Your task to perform on an android device: When is my next meeting? Image 0: 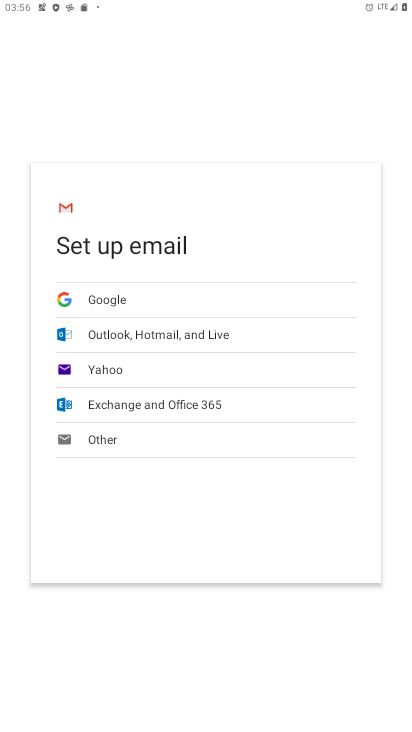
Step 0: press home button
Your task to perform on an android device: When is my next meeting? Image 1: 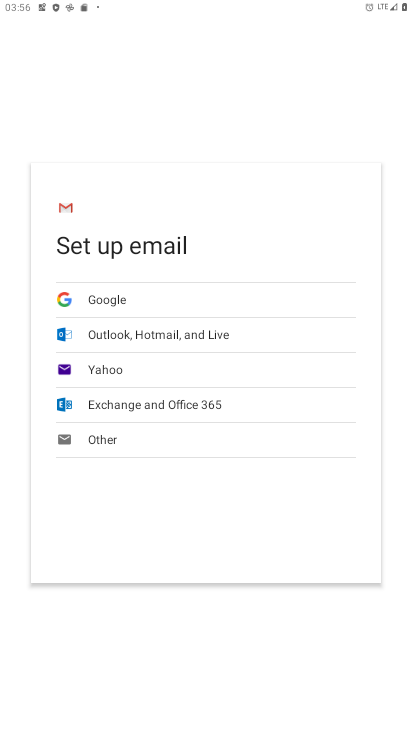
Step 1: press home button
Your task to perform on an android device: When is my next meeting? Image 2: 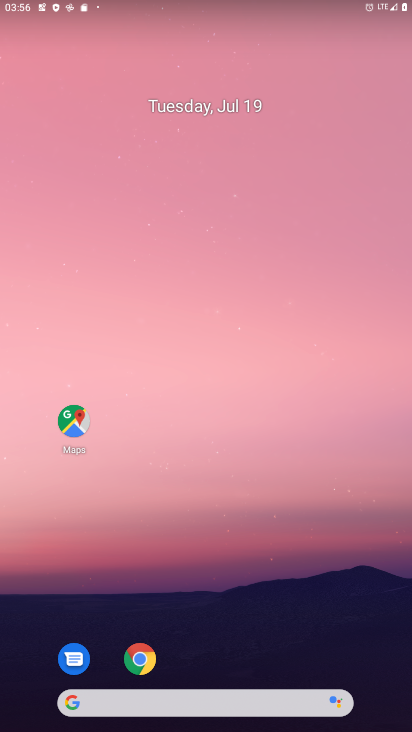
Step 2: drag from (237, 676) to (244, 207)
Your task to perform on an android device: When is my next meeting? Image 3: 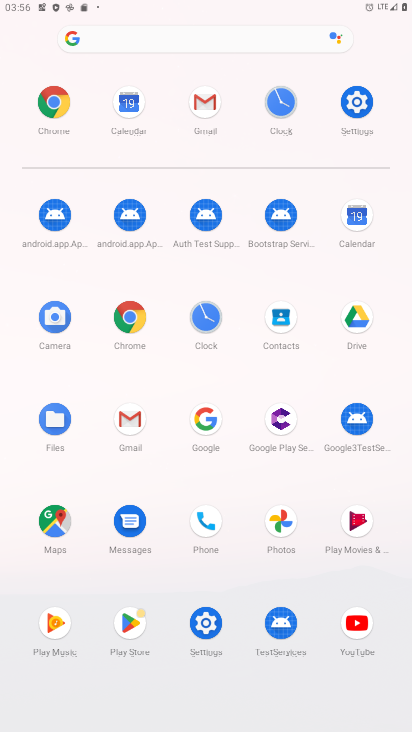
Step 3: click (366, 206)
Your task to perform on an android device: When is my next meeting? Image 4: 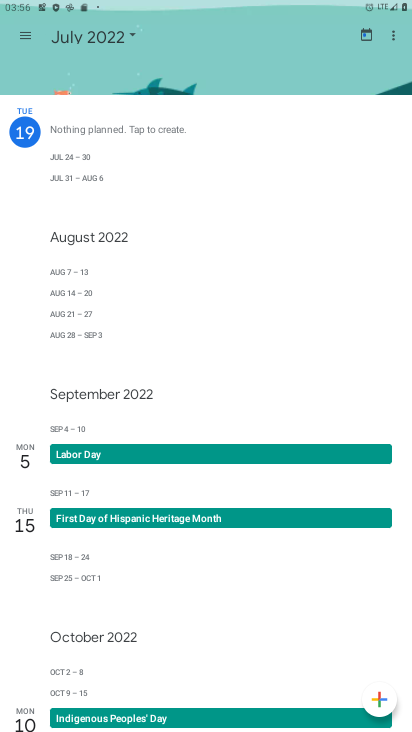
Step 4: task complete